Your task to perform on an android device: turn off improve location accuracy Image 0: 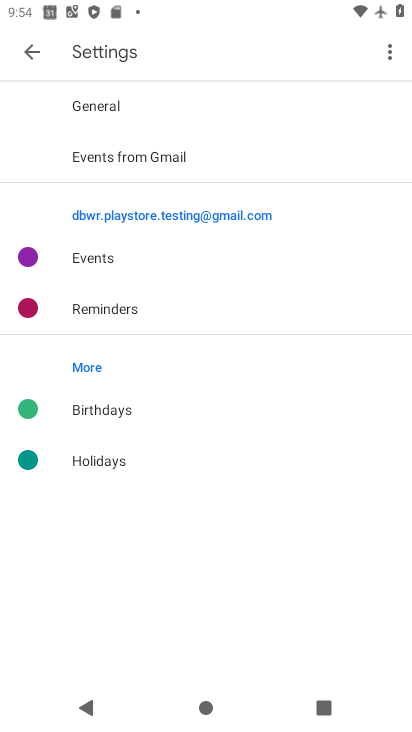
Step 0: press home button
Your task to perform on an android device: turn off improve location accuracy Image 1: 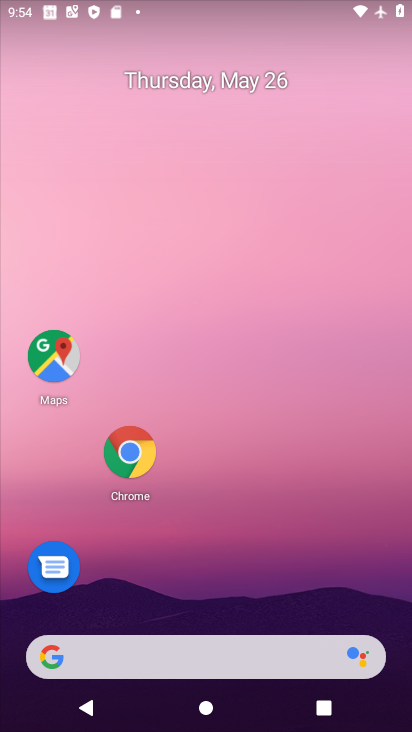
Step 1: drag from (188, 656) to (315, 56)
Your task to perform on an android device: turn off improve location accuracy Image 2: 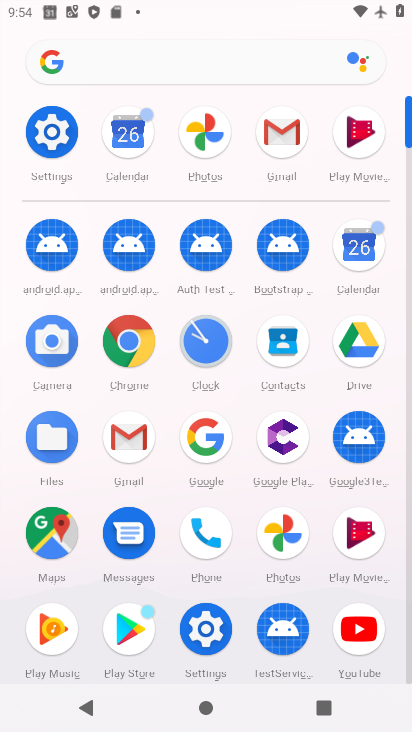
Step 2: click (62, 139)
Your task to perform on an android device: turn off improve location accuracy Image 3: 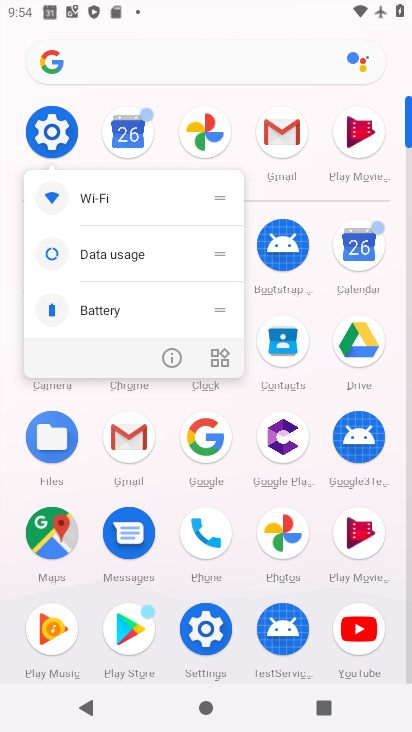
Step 3: click (63, 137)
Your task to perform on an android device: turn off improve location accuracy Image 4: 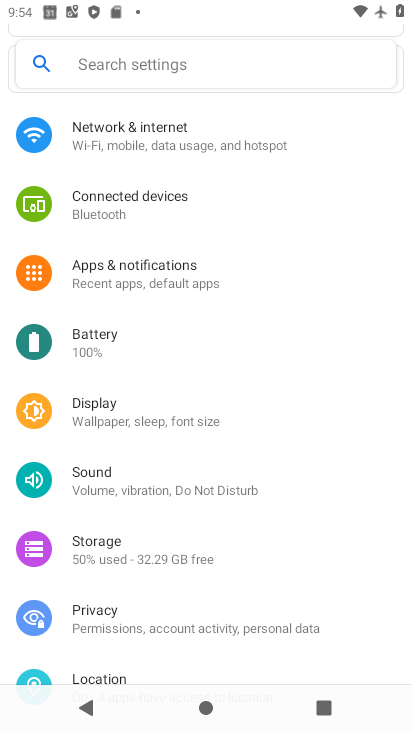
Step 4: drag from (274, 574) to (365, 188)
Your task to perform on an android device: turn off improve location accuracy Image 5: 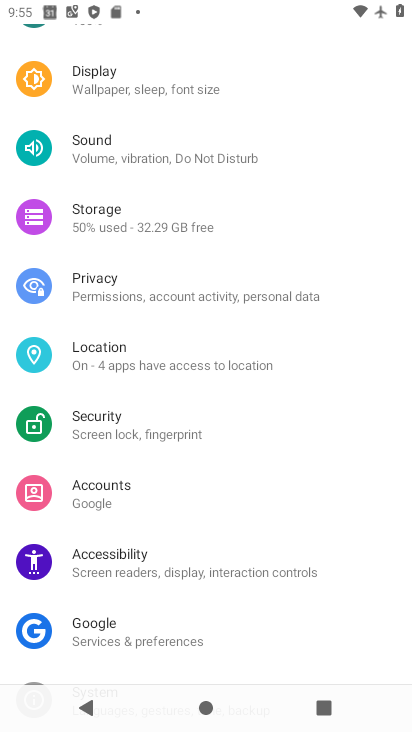
Step 5: click (158, 368)
Your task to perform on an android device: turn off improve location accuracy Image 6: 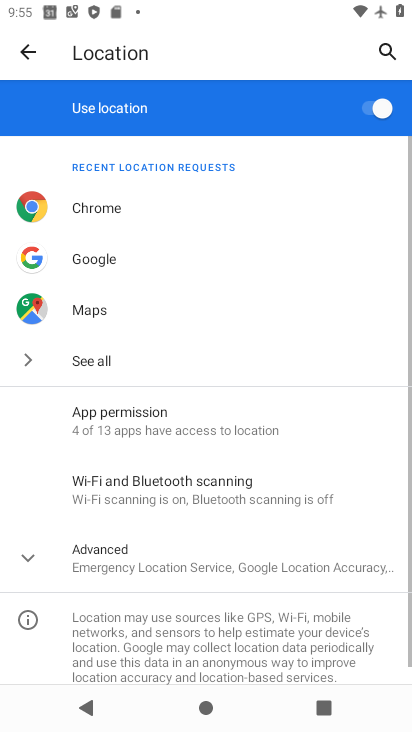
Step 6: click (200, 574)
Your task to perform on an android device: turn off improve location accuracy Image 7: 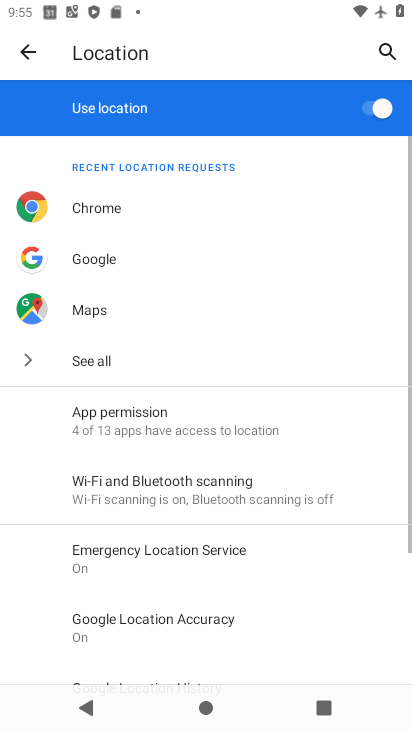
Step 7: drag from (200, 573) to (292, 283)
Your task to perform on an android device: turn off improve location accuracy Image 8: 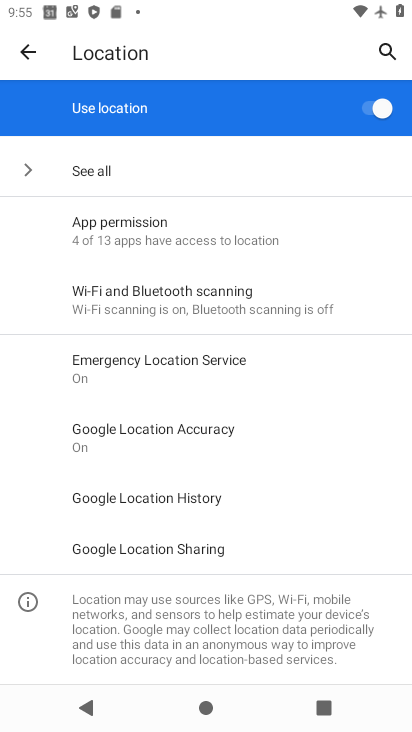
Step 8: click (144, 440)
Your task to perform on an android device: turn off improve location accuracy Image 9: 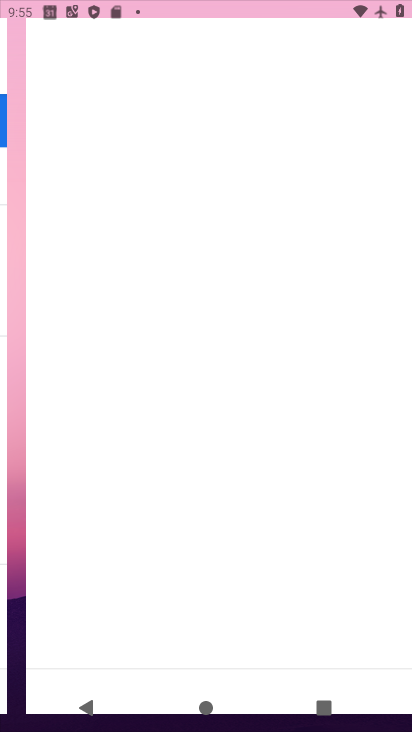
Step 9: click (352, 224)
Your task to perform on an android device: turn off improve location accuracy Image 10: 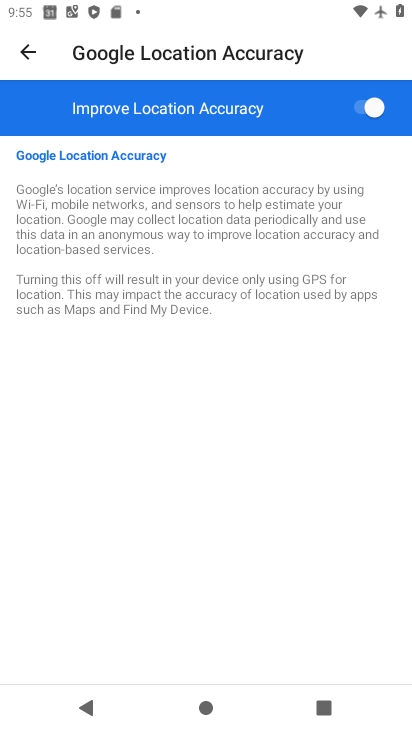
Step 10: click (370, 100)
Your task to perform on an android device: turn off improve location accuracy Image 11: 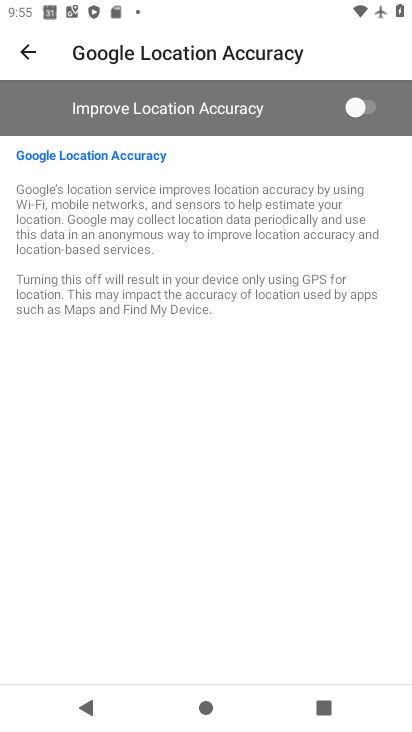
Step 11: task complete